Your task to perform on an android device: Go to location settings Image 0: 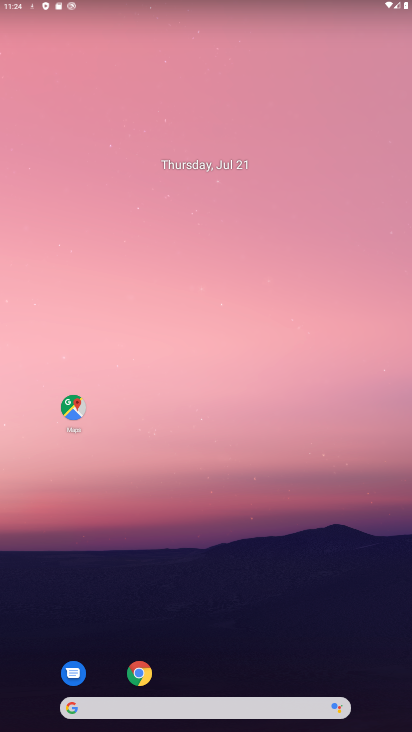
Step 0: drag from (378, 35) to (397, 387)
Your task to perform on an android device: Go to location settings Image 1: 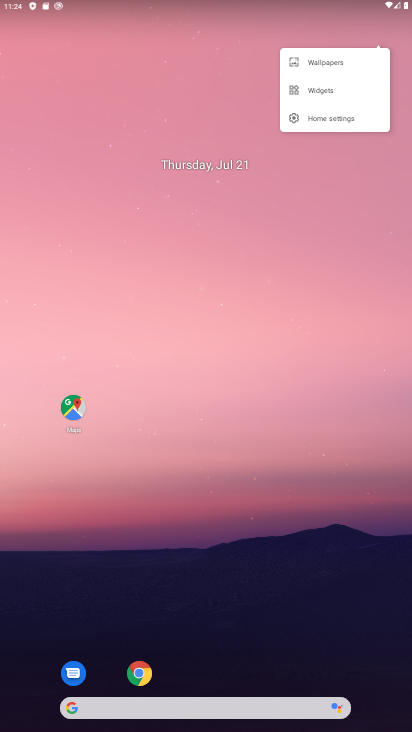
Step 1: drag from (167, 606) to (265, 244)
Your task to perform on an android device: Go to location settings Image 2: 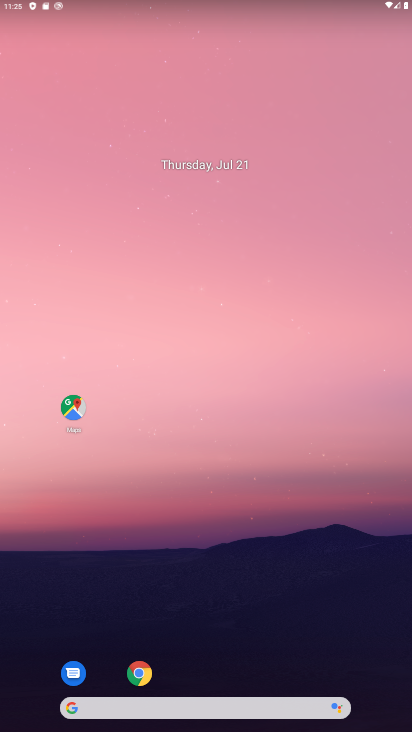
Step 2: drag from (188, 564) to (258, 169)
Your task to perform on an android device: Go to location settings Image 3: 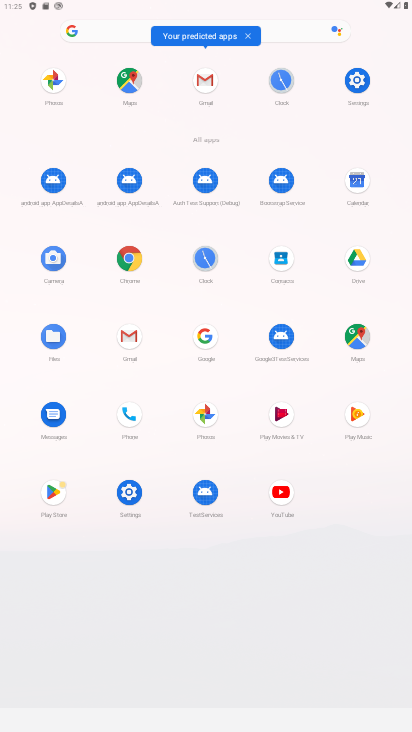
Step 3: click (130, 491)
Your task to perform on an android device: Go to location settings Image 4: 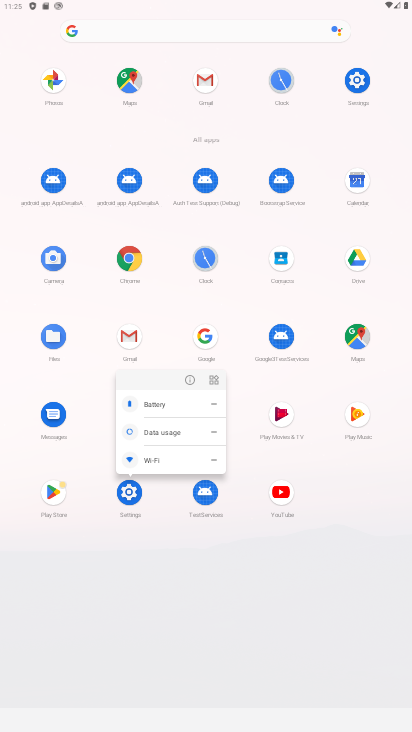
Step 4: click (188, 375)
Your task to perform on an android device: Go to location settings Image 5: 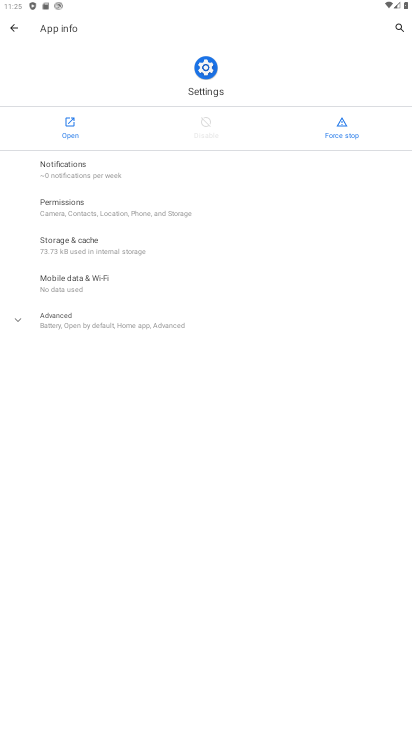
Step 5: click (74, 129)
Your task to perform on an android device: Go to location settings Image 6: 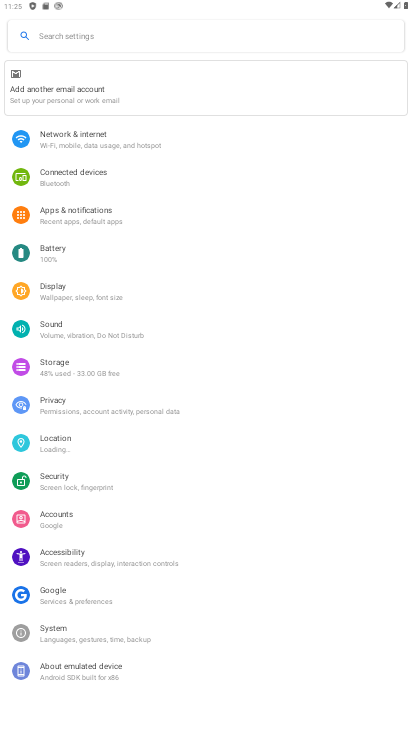
Step 6: click (93, 381)
Your task to perform on an android device: Go to location settings Image 7: 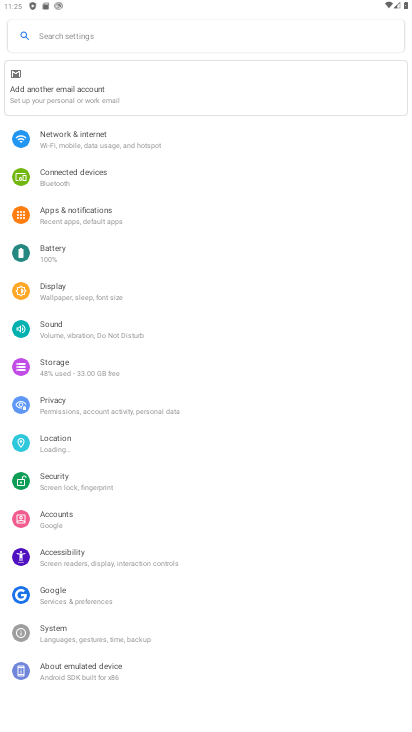
Step 7: drag from (93, 381) to (230, 94)
Your task to perform on an android device: Go to location settings Image 8: 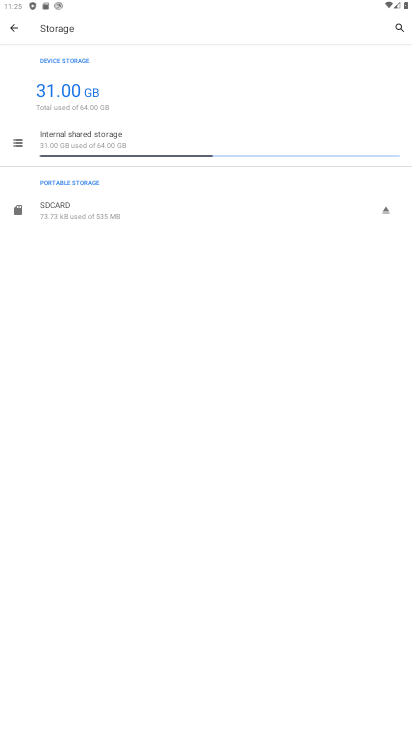
Step 8: click (8, 30)
Your task to perform on an android device: Go to location settings Image 9: 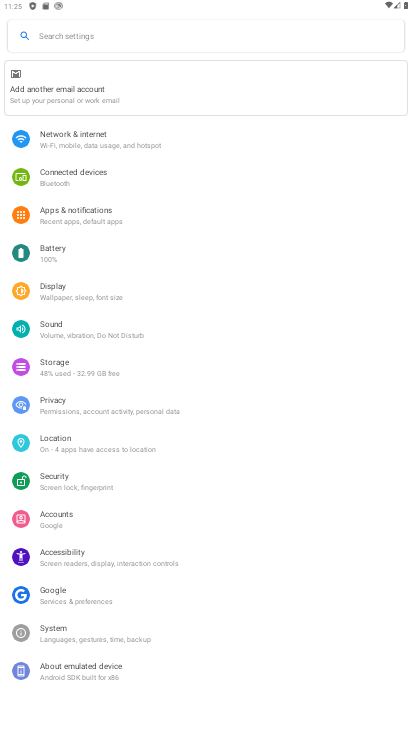
Step 9: click (71, 439)
Your task to perform on an android device: Go to location settings Image 10: 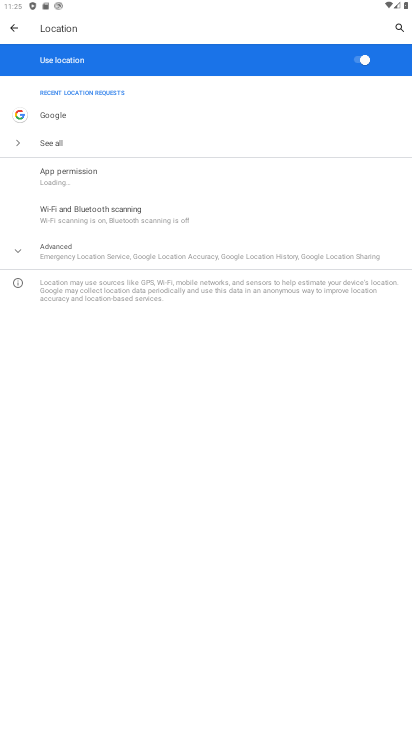
Step 10: drag from (200, 451) to (236, 147)
Your task to perform on an android device: Go to location settings Image 11: 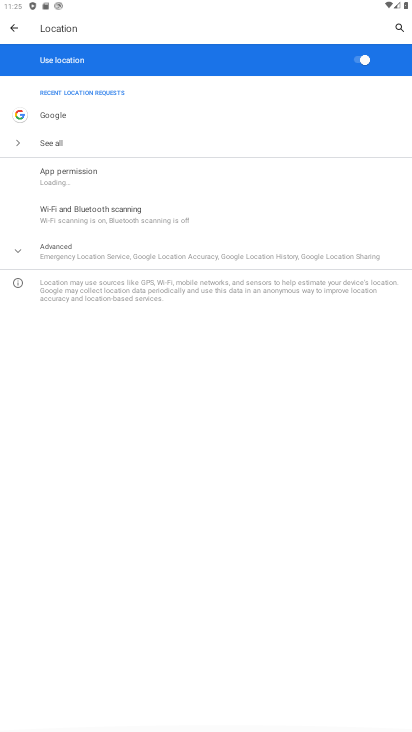
Step 11: click (76, 261)
Your task to perform on an android device: Go to location settings Image 12: 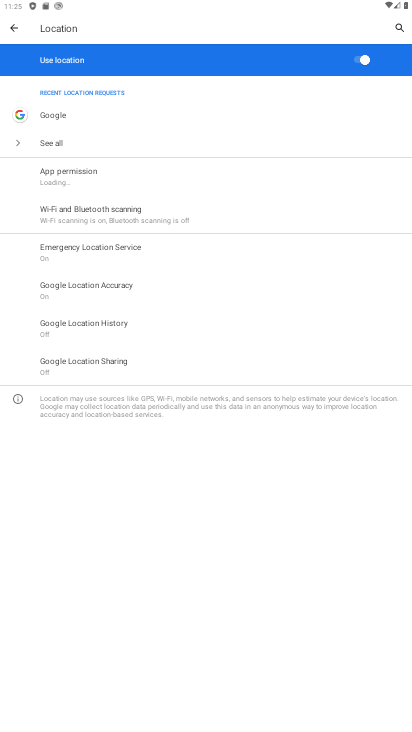
Step 12: task complete